Your task to perform on an android device: Go to notification settings Image 0: 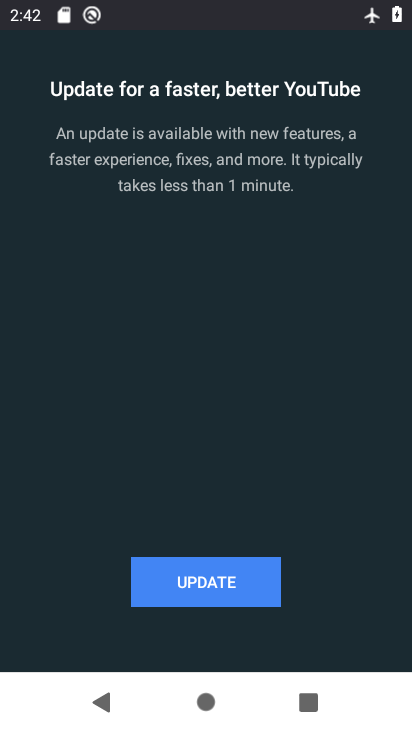
Step 0: press home button
Your task to perform on an android device: Go to notification settings Image 1: 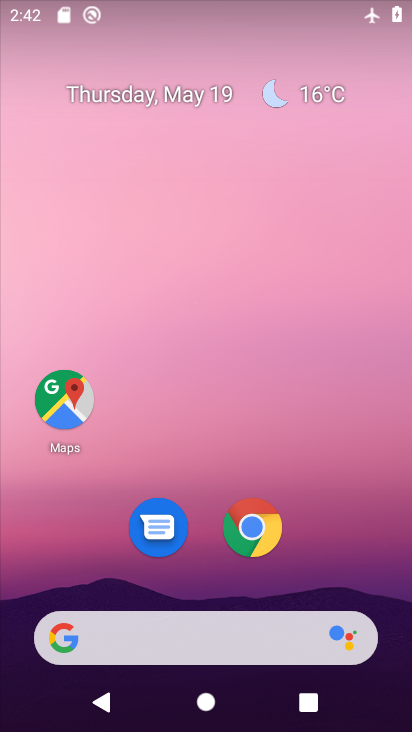
Step 1: drag from (349, 573) to (259, 39)
Your task to perform on an android device: Go to notification settings Image 2: 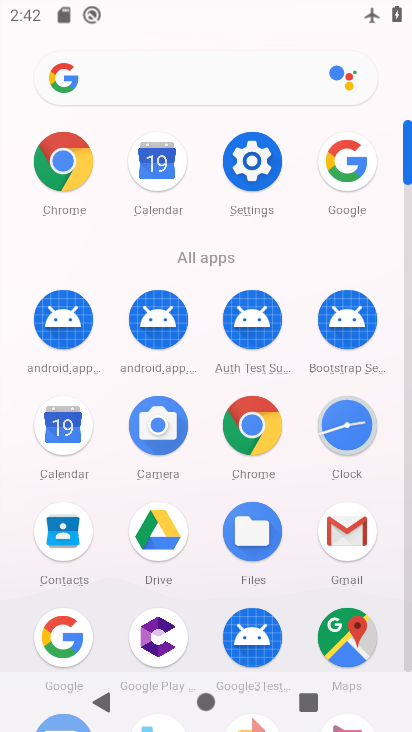
Step 2: click (245, 152)
Your task to perform on an android device: Go to notification settings Image 3: 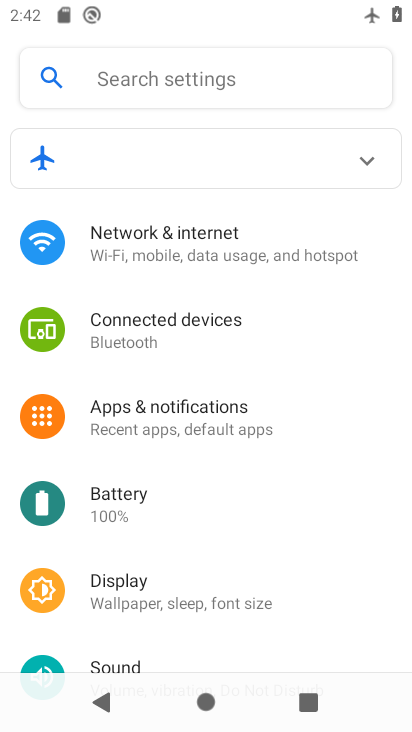
Step 3: click (217, 422)
Your task to perform on an android device: Go to notification settings Image 4: 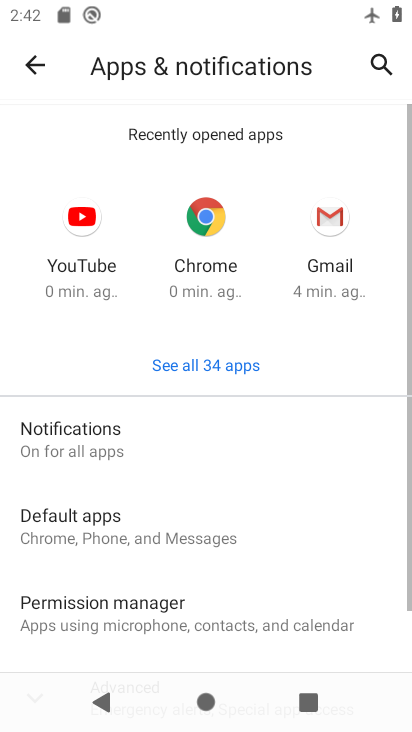
Step 4: task complete